Your task to perform on an android device: Turn on the flashlight Image 0: 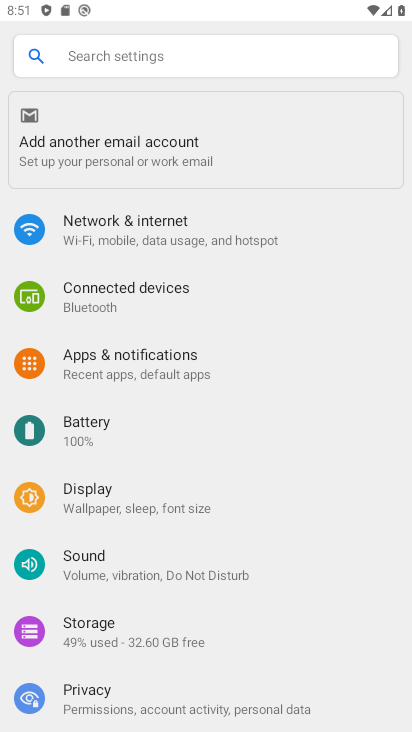
Step 0: drag from (256, 448) to (189, 145)
Your task to perform on an android device: Turn on the flashlight Image 1: 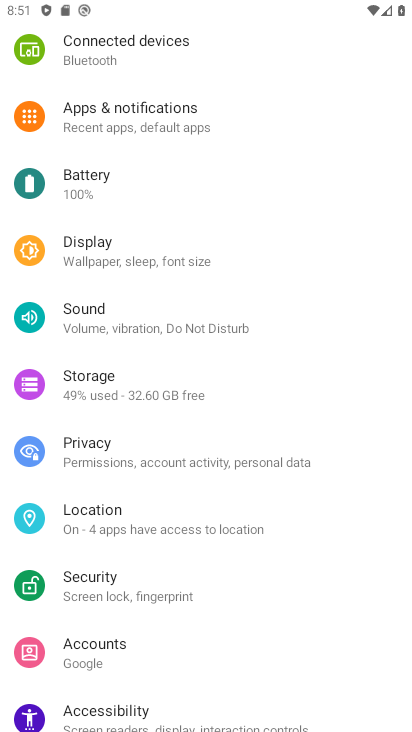
Step 1: task complete